Your task to perform on an android device: toggle improve location accuracy Image 0: 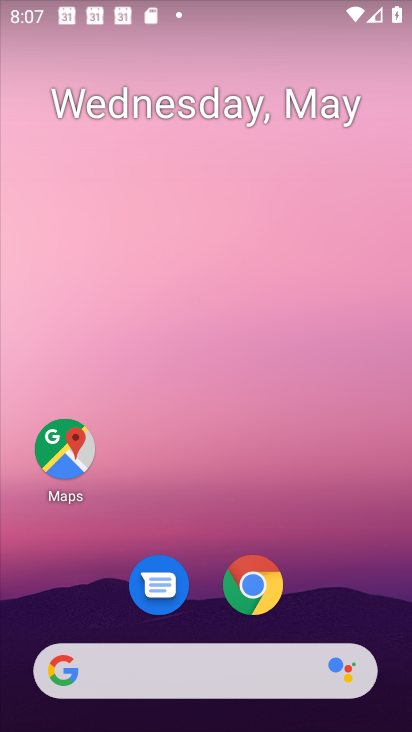
Step 0: drag from (326, 567) to (295, 39)
Your task to perform on an android device: toggle improve location accuracy Image 1: 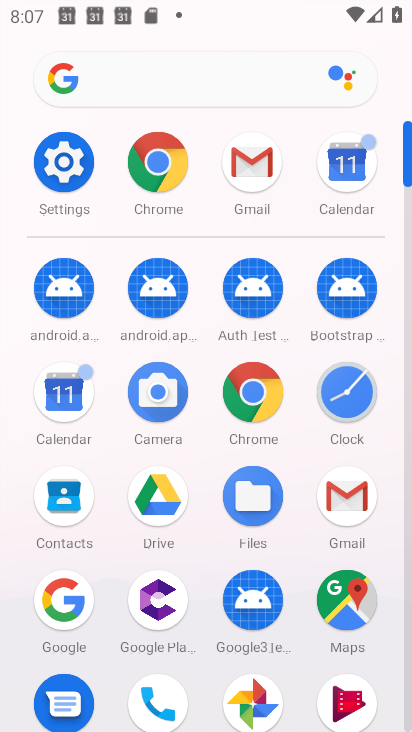
Step 1: click (84, 148)
Your task to perform on an android device: toggle improve location accuracy Image 2: 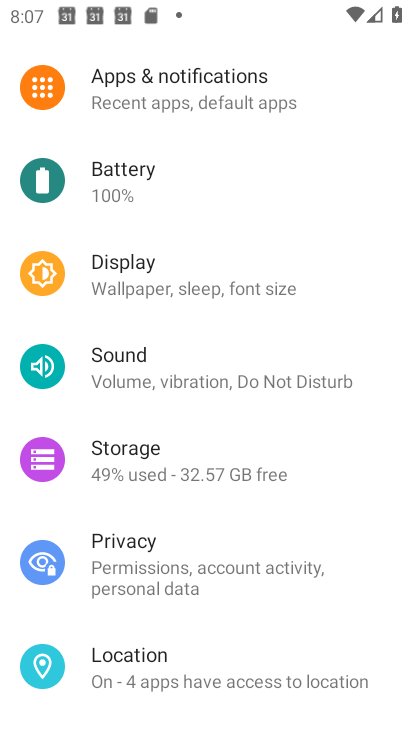
Step 2: click (209, 672)
Your task to perform on an android device: toggle improve location accuracy Image 3: 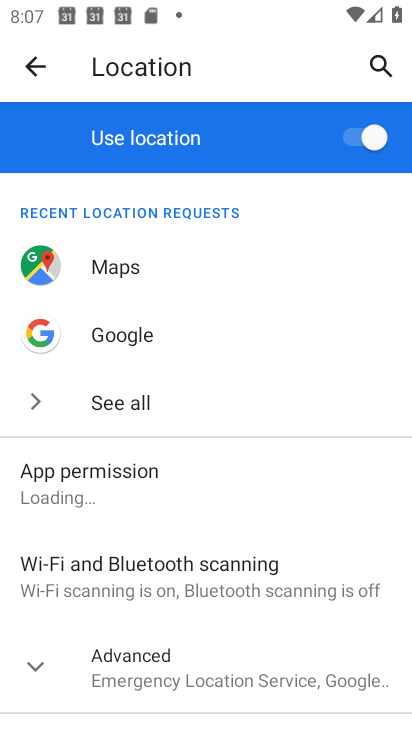
Step 3: drag from (266, 481) to (242, 163)
Your task to perform on an android device: toggle improve location accuracy Image 4: 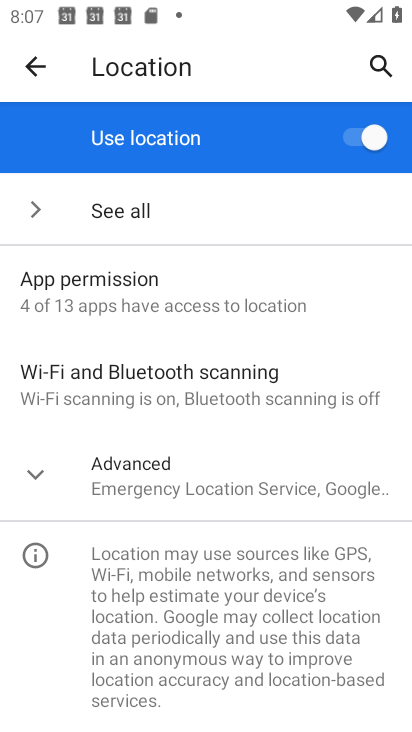
Step 4: click (36, 475)
Your task to perform on an android device: toggle improve location accuracy Image 5: 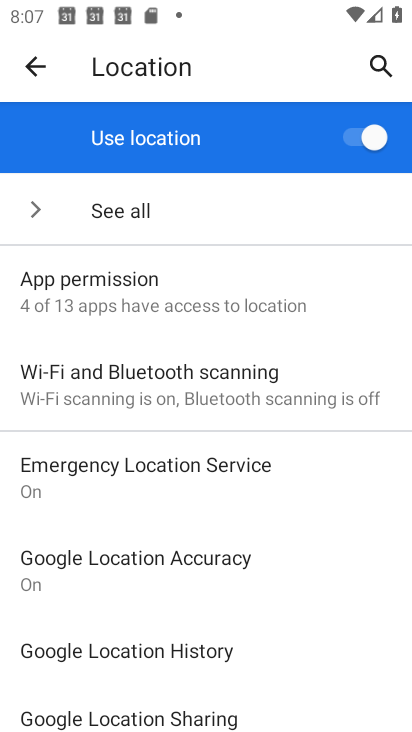
Step 5: click (132, 574)
Your task to perform on an android device: toggle improve location accuracy Image 6: 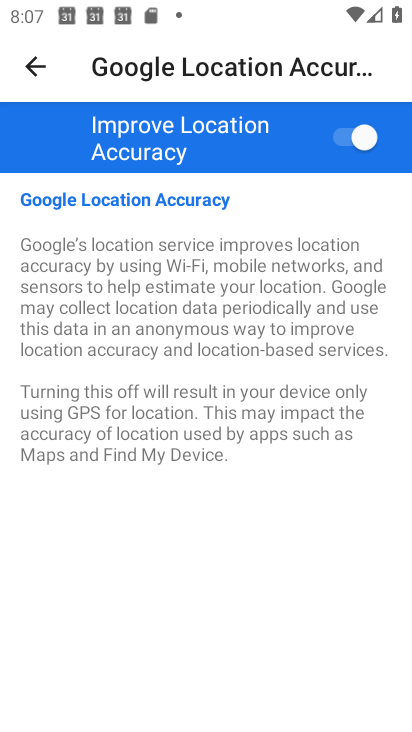
Step 6: click (354, 129)
Your task to perform on an android device: toggle improve location accuracy Image 7: 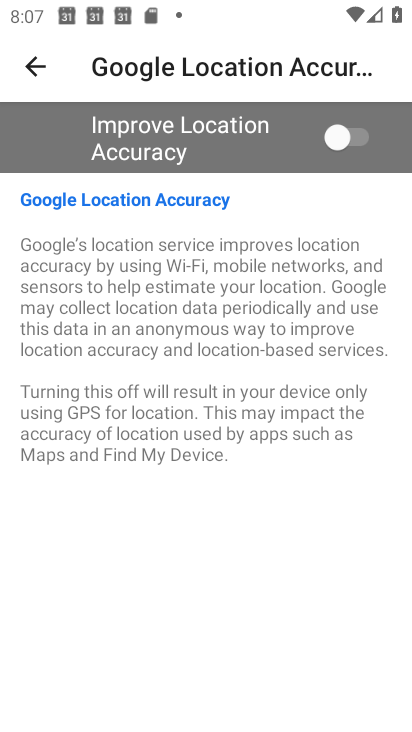
Step 7: task complete